Your task to perform on an android device: Go to battery settings Image 0: 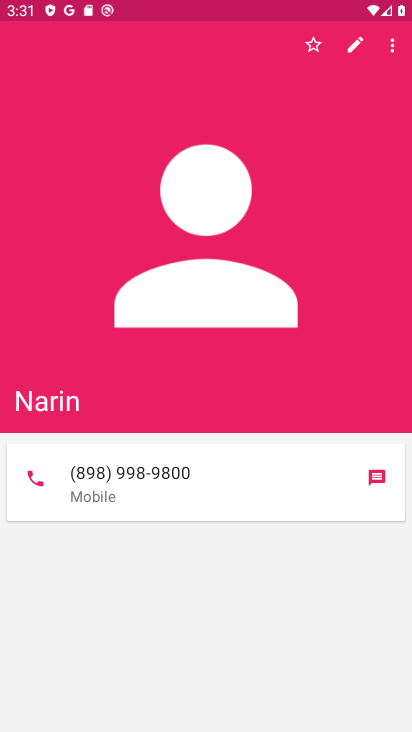
Step 0: drag from (213, 652) to (287, 614)
Your task to perform on an android device: Go to battery settings Image 1: 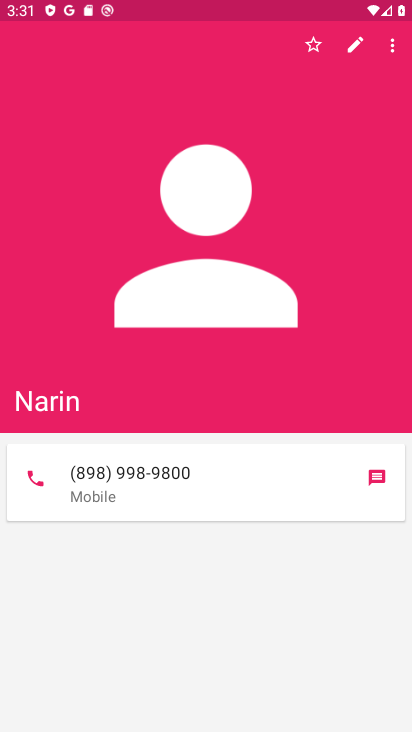
Step 1: press home button
Your task to perform on an android device: Go to battery settings Image 2: 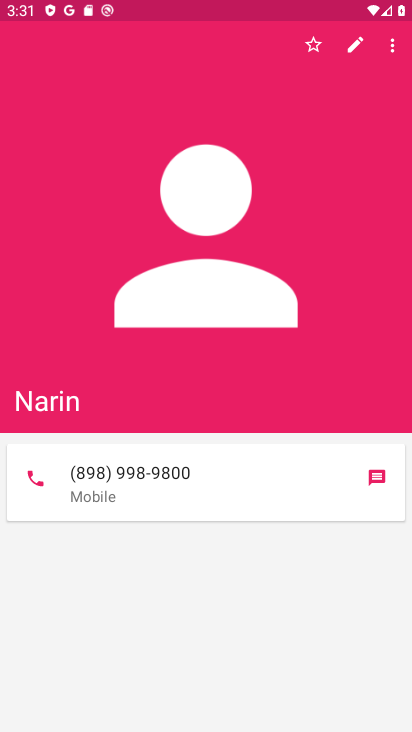
Step 2: drag from (287, 614) to (378, 627)
Your task to perform on an android device: Go to battery settings Image 3: 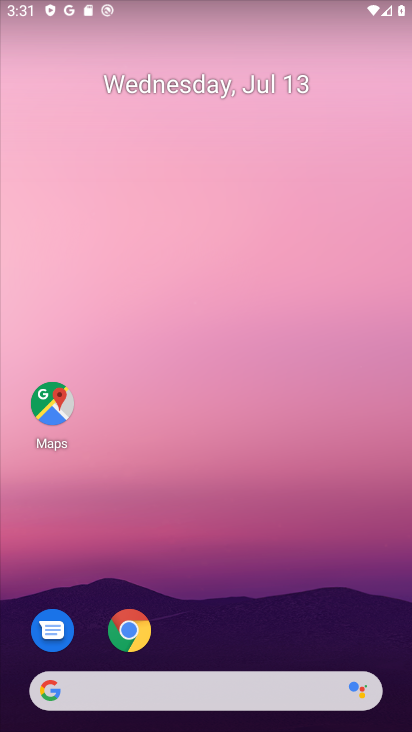
Step 3: drag from (211, 524) to (211, 249)
Your task to perform on an android device: Go to battery settings Image 4: 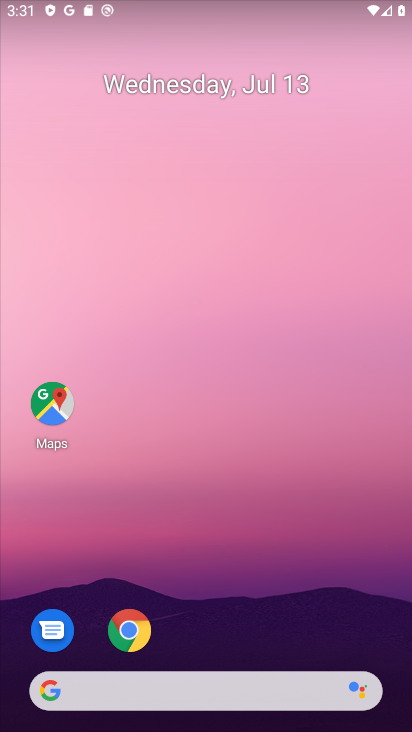
Step 4: click (142, 43)
Your task to perform on an android device: Go to battery settings Image 5: 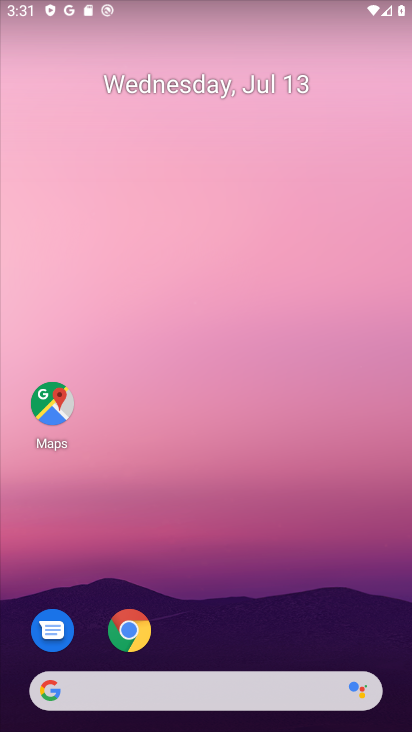
Step 5: drag from (202, 476) to (137, 140)
Your task to perform on an android device: Go to battery settings Image 6: 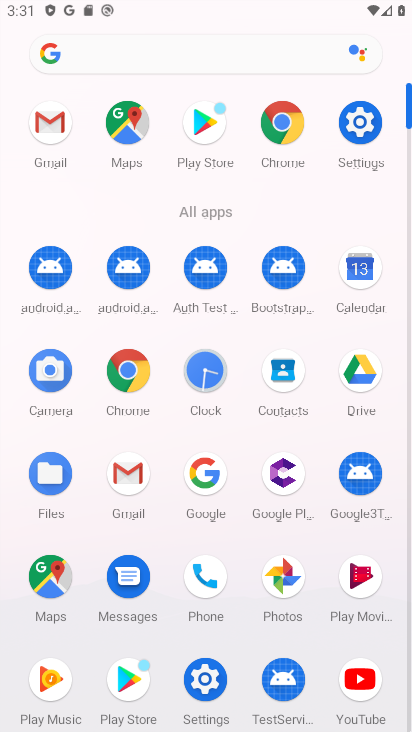
Step 6: click (353, 135)
Your task to perform on an android device: Go to battery settings Image 7: 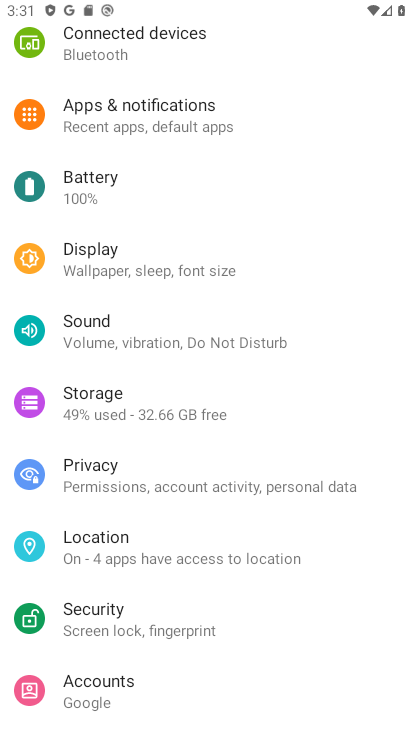
Step 7: click (110, 197)
Your task to perform on an android device: Go to battery settings Image 8: 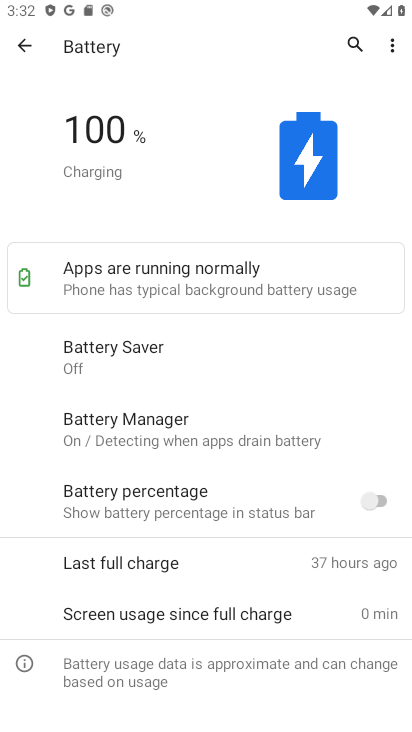
Step 8: task complete